Your task to perform on an android device: star an email in the gmail app Image 0: 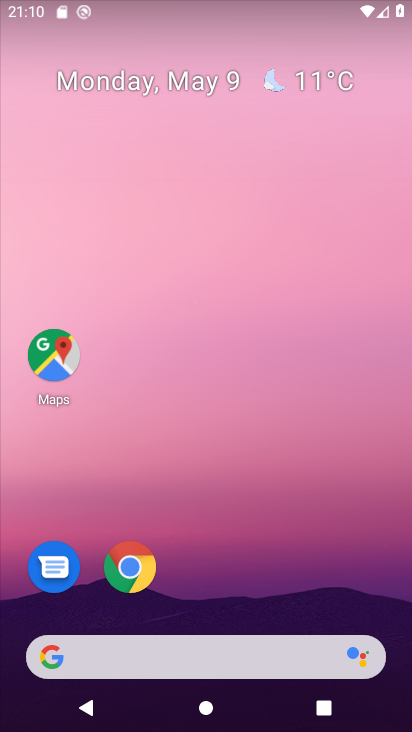
Step 0: drag from (276, 553) to (221, 109)
Your task to perform on an android device: star an email in the gmail app Image 1: 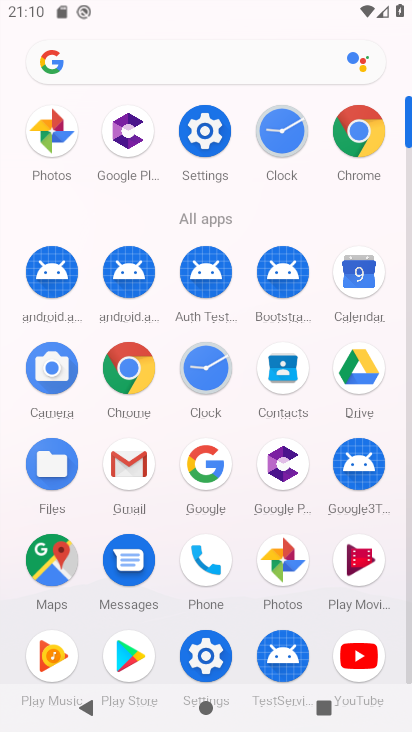
Step 1: click (119, 469)
Your task to perform on an android device: star an email in the gmail app Image 2: 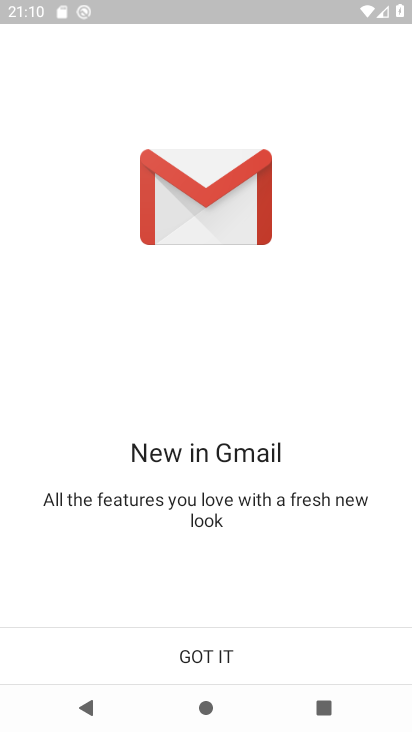
Step 2: click (189, 650)
Your task to perform on an android device: star an email in the gmail app Image 3: 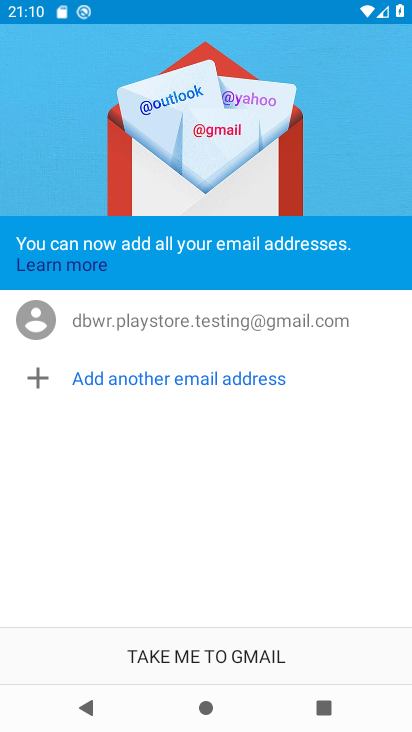
Step 3: click (190, 649)
Your task to perform on an android device: star an email in the gmail app Image 4: 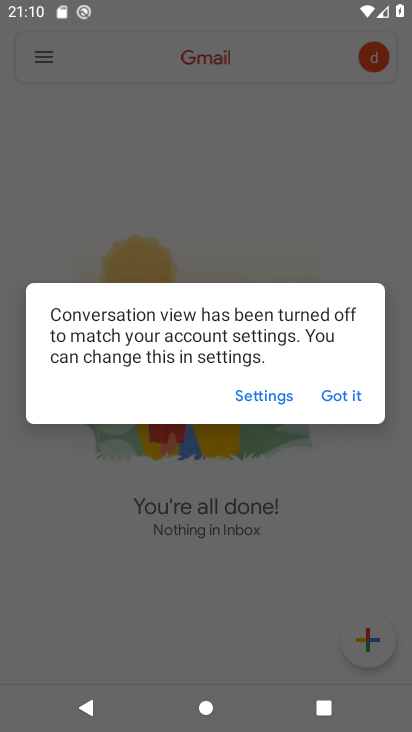
Step 4: click (351, 383)
Your task to perform on an android device: star an email in the gmail app Image 5: 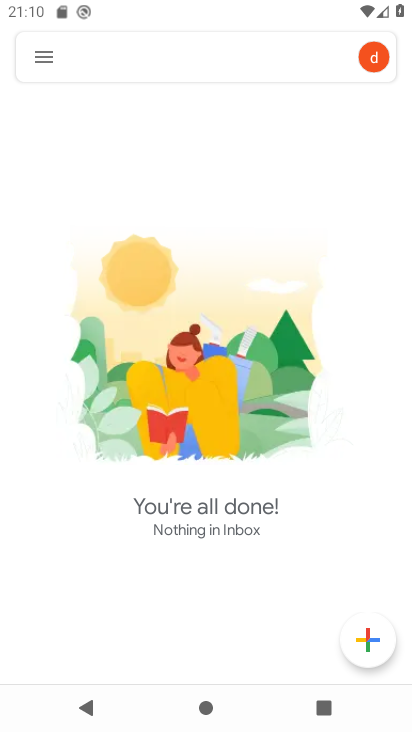
Step 5: click (44, 64)
Your task to perform on an android device: star an email in the gmail app Image 6: 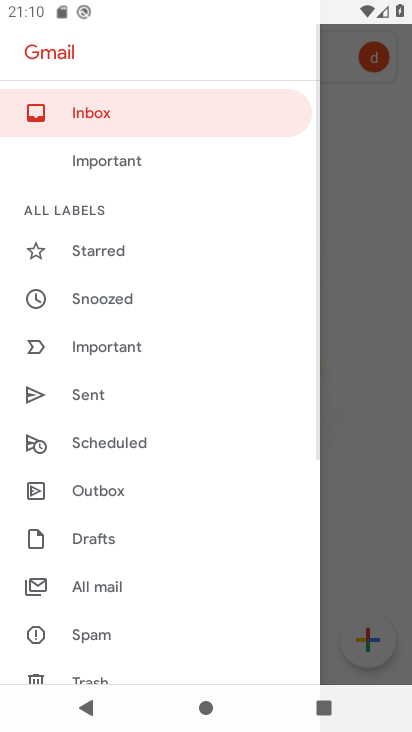
Step 6: click (108, 585)
Your task to perform on an android device: star an email in the gmail app Image 7: 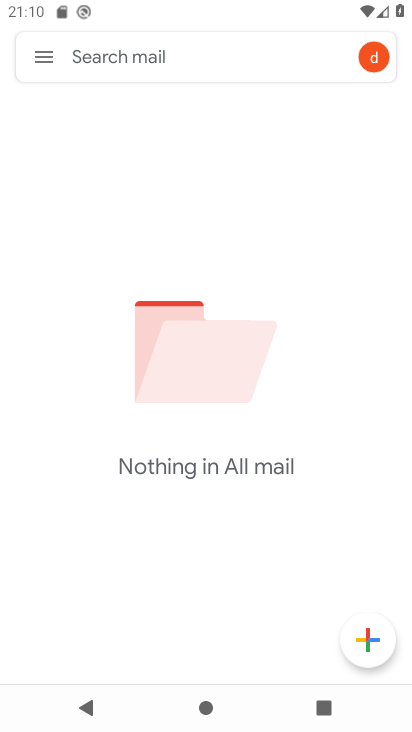
Step 7: task complete